Your task to perform on an android device: turn off priority inbox in the gmail app Image 0: 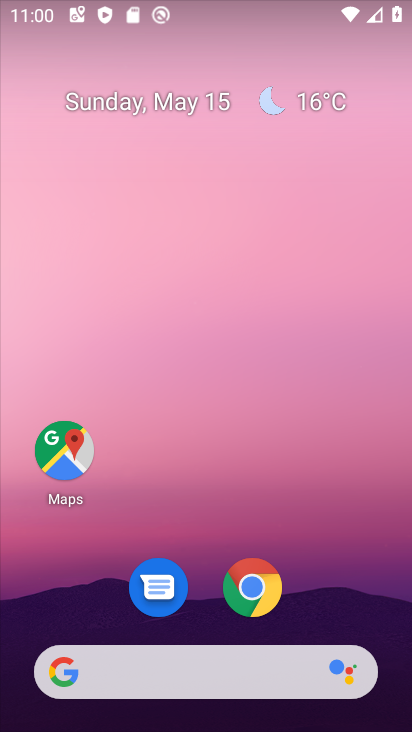
Step 0: drag from (344, 566) to (285, 26)
Your task to perform on an android device: turn off priority inbox in the gmail app Image 1: 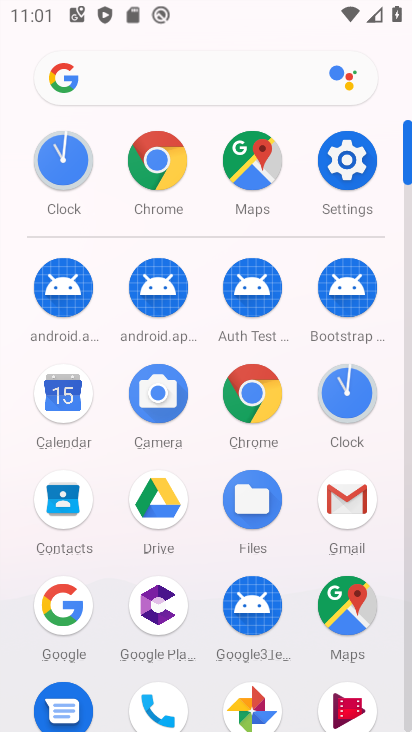
Step 1: click (350, 489)
Your task to perform on an android device: turn off priority inbox in the gmail app Image 2: 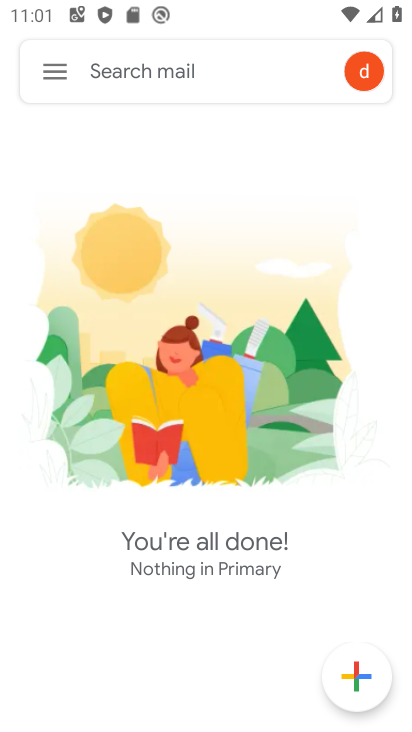
Step 2: click (53, 70)
Your task to perform on an android device: turn off priority inbox in the gmail app Image 3: 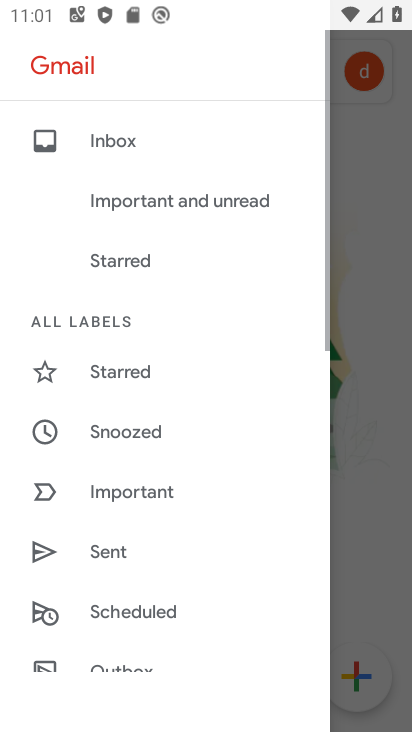
Step 3: drag from (179, 675) to (248, 100)
Your task to perform on an android device: turn off priority inbox in the gmail app Image 4: 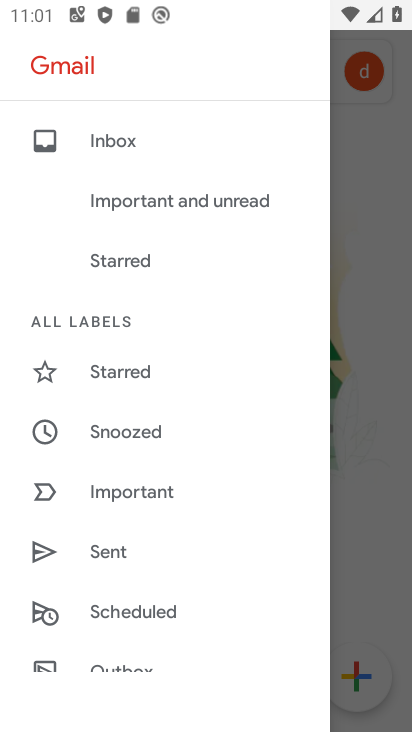
Step 4: drag from (172, 537) to (259, 125)
Your task to perform on an android device: turn off priority inbox in the gmail app Image 5: 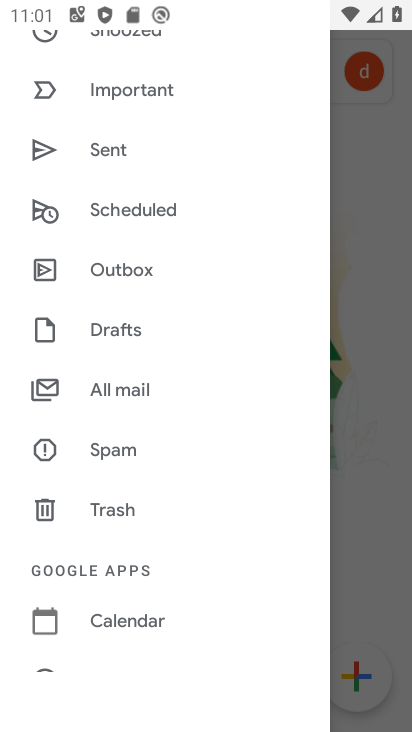
Step 5: drag from (241, 556) to (243, 172)
Your task to perform on an android device: turn off priority inbox in the gmail app Image 6: 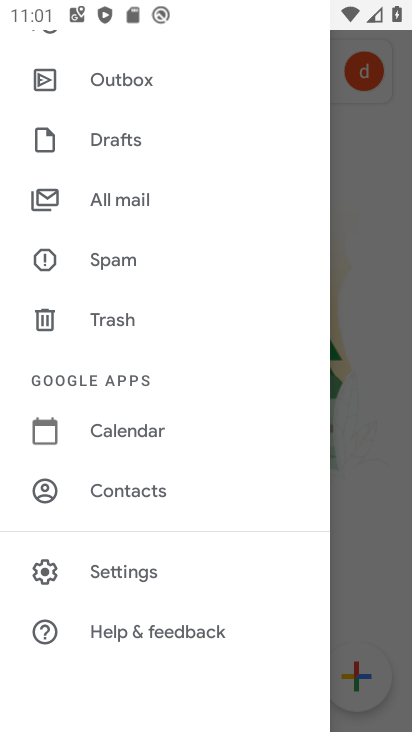
Step 6: click (124, 558)
Your task to perform on an android device: turn off priority inbox in the gmail app Image 7: 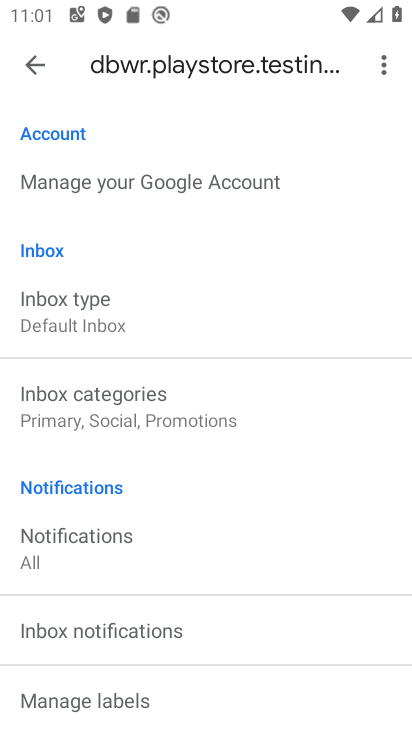
Step 7: click (132, 308)
Your task to perform on an android device: turn off priority inbox in the gmail app Image 8: 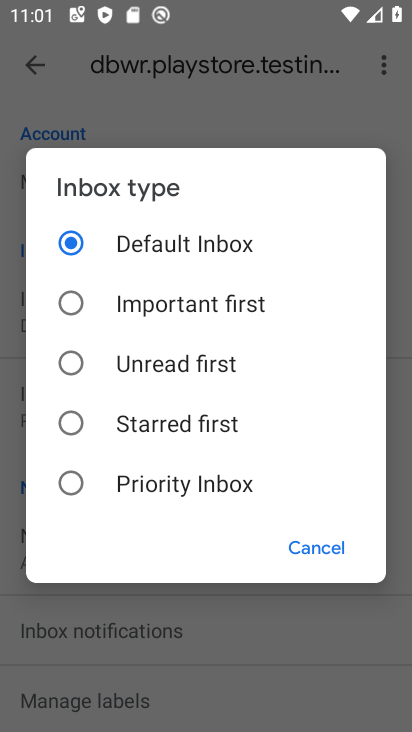
Step 8: click (150, 301)
Your task to perform on an android device: turn off priority inbox in the gmail app Image 9: 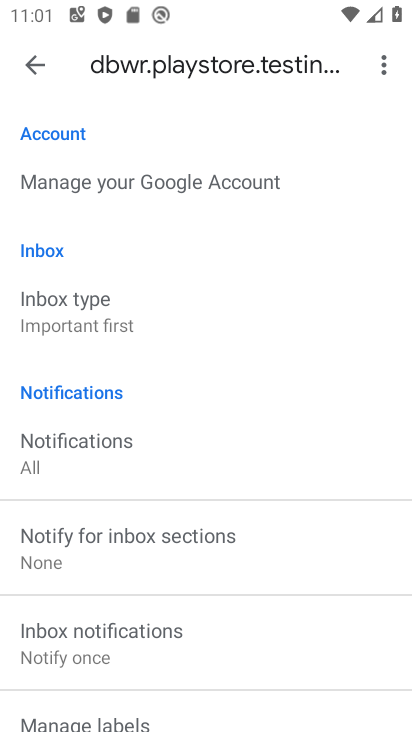
Step 9: task complete